Your task to perform on an android device: turn on airplane mode Image 0: 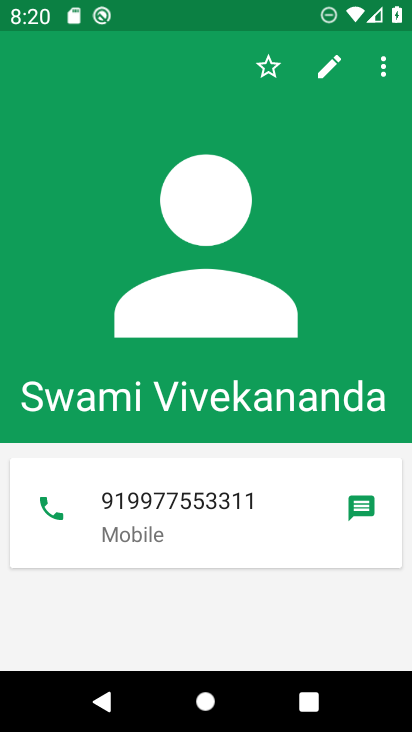
Step 0: press home button
Your task to perform on an android device: turn on airplane mode Image 1: 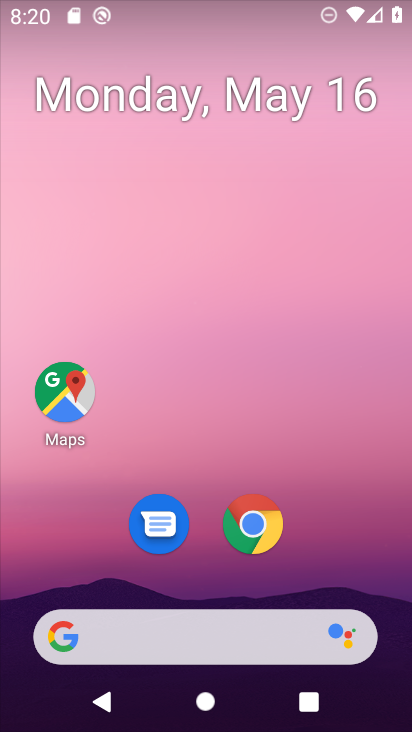
Step 1: drag from (319, 442) to (256, 43)
Your task to perform on an android device: turn on airplane mode Image 2: 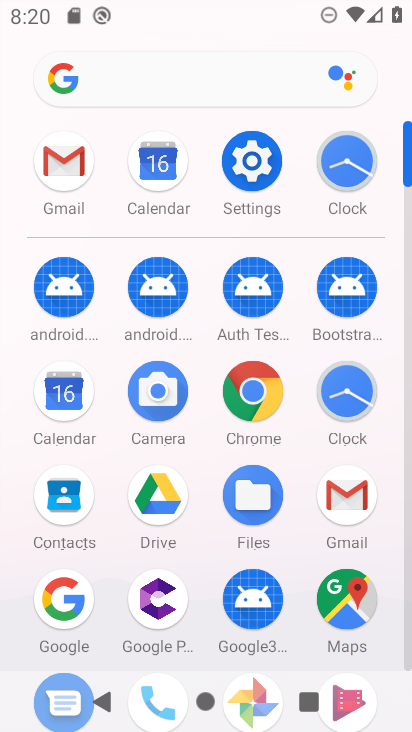
Step 2: click (243, 155)
Your task to perform on an android device: turn on airplane mode Image 3: 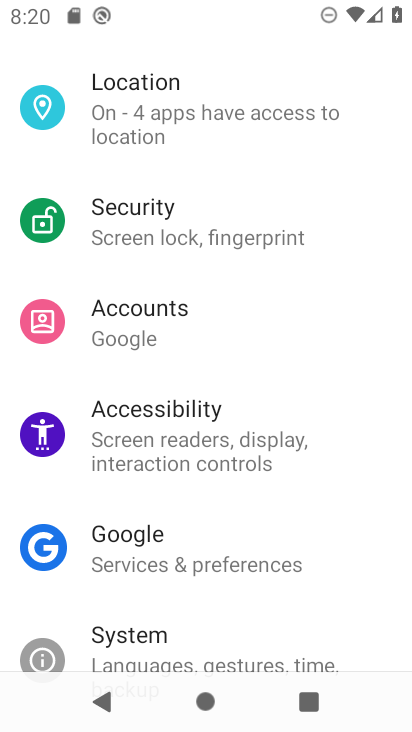
Step 3: drag from (230, 182) to (241, 501)
Your task to perform on an android device: turn on airplane mode Image 4: 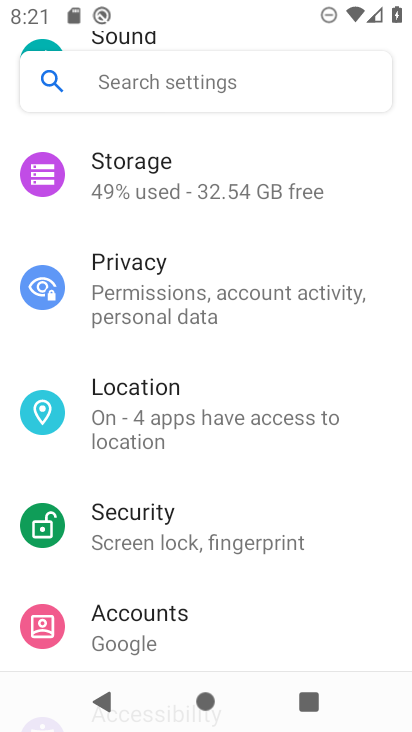
Step 4: drag from (207, 286) to (217, 577)
Your task to perform on an android device: turn on airplane mode Image 5: 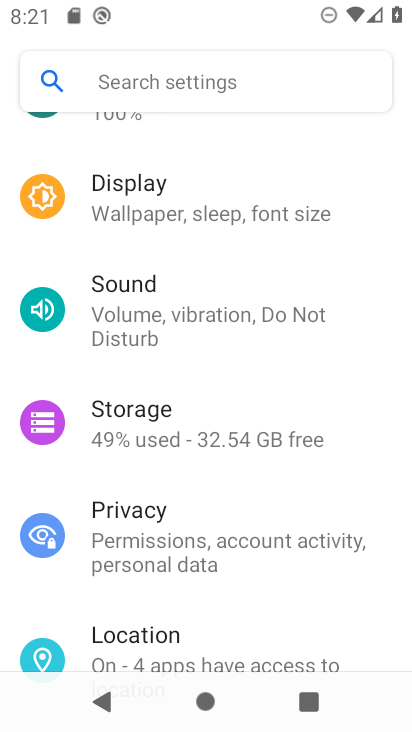
Step 5: drag from (189, 291) to (197, 497)
Your task to perform on an android device: turn on airplane mode Image 6: 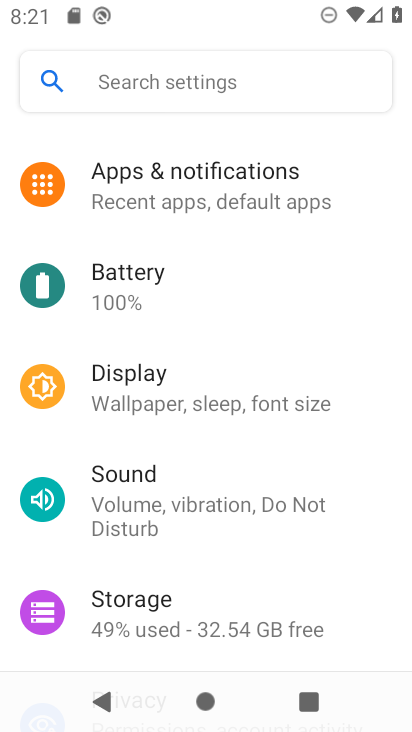
Step 6: drag from (189, 291) to (192, 514)
Your task to perform on an android device: turn on airplane mode Image 7: 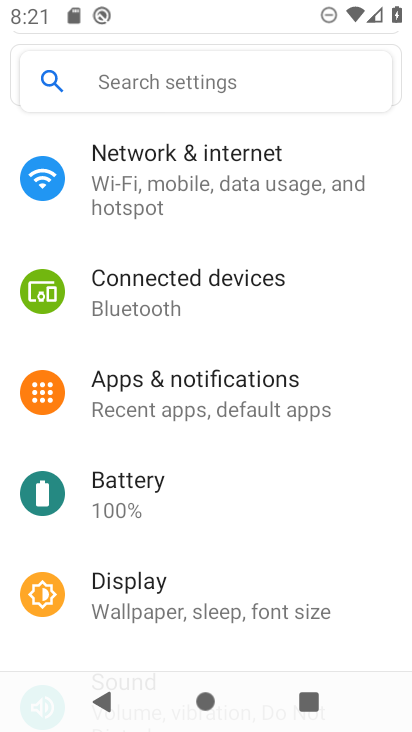
Step 7: click (194, 173)
Your task to perform on an android device: turn on airplane mode Image 8: 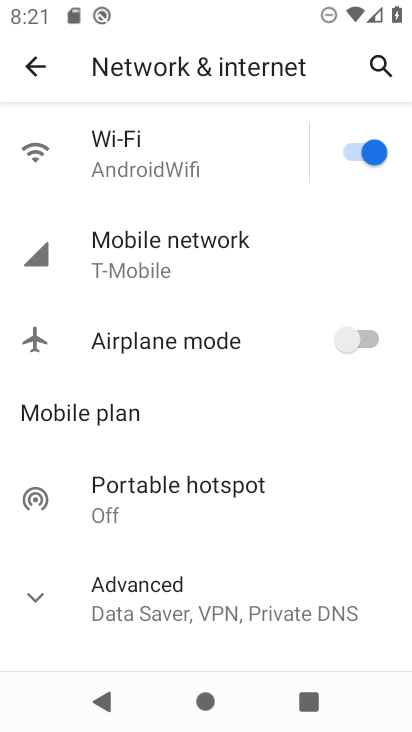
Step 8: click (351, 332)
Your task to perform on an android device: turn on airplane mode Image 9: 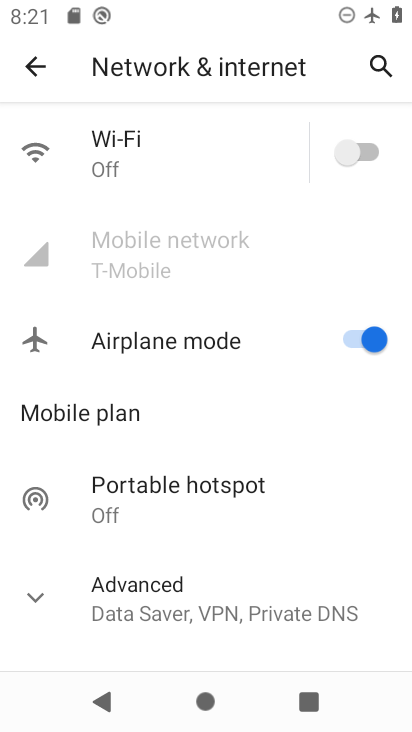
Step 9: task complete